Your task to perform on an android device: turn vacation reply on in the gmail app Image 0: 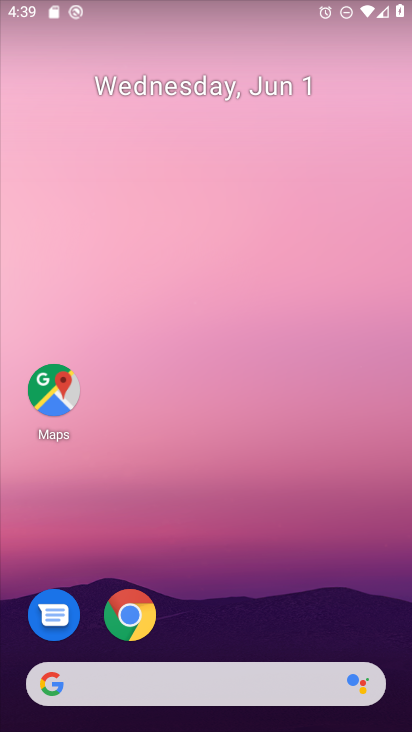
Step 0: press home button
Your task to perform on an android device: turn vacation reply on in the gmail app Image 1: 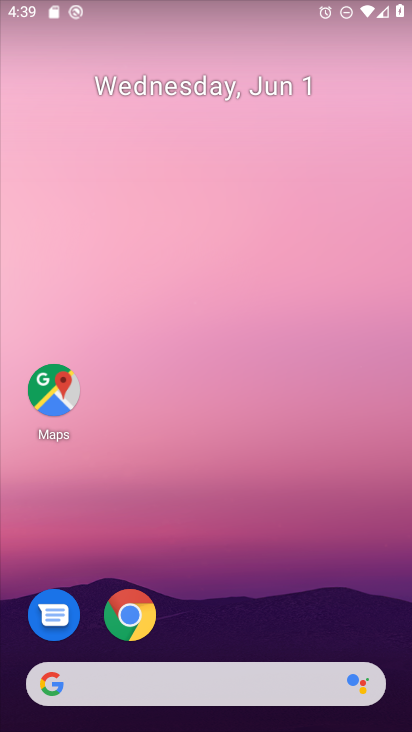
Step 1: drag from (204, 622) to (204, 80)
Your task to perform on an android device: turn vacation reply on in the gmail app Image 2: 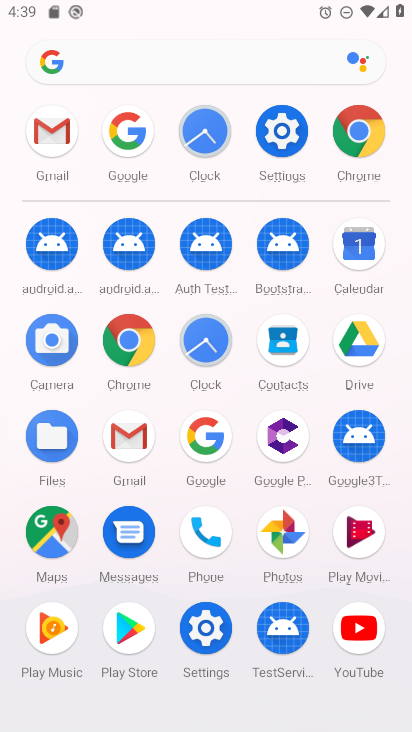
Step 2: click (49, 121)
Your task to perform on an android device: turn vacation reply on in the gmail app Image 3: 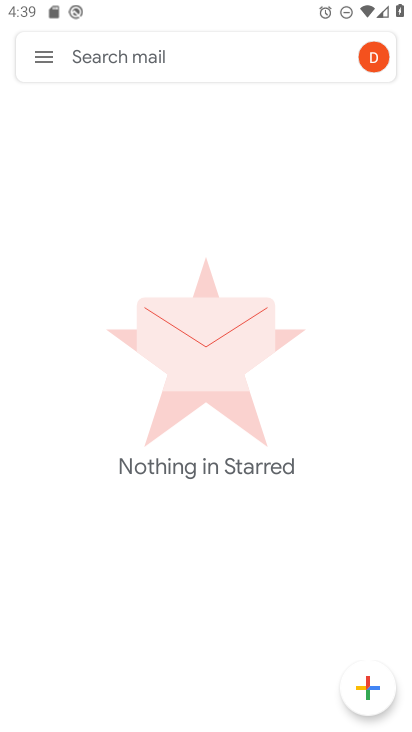
Step 3: click (42, 53)
Your task to perform on an android device: turn vacation reply on in the gmail app Image 4: 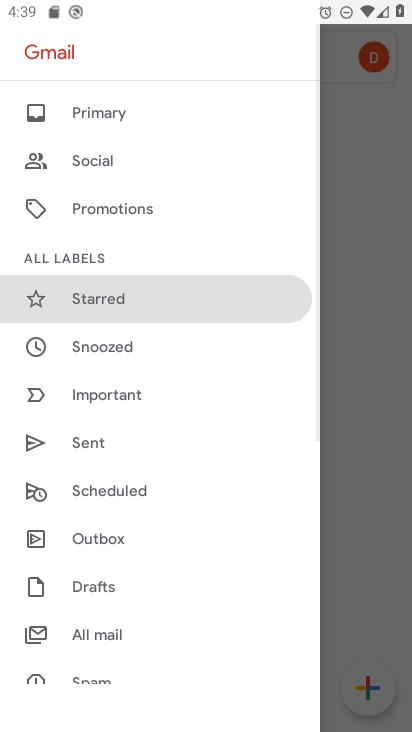
Step 4: drag from (180, 654) to (180, 108)
Your task to perform on an android device: turn vacation reply on in the gmail app Image 5: 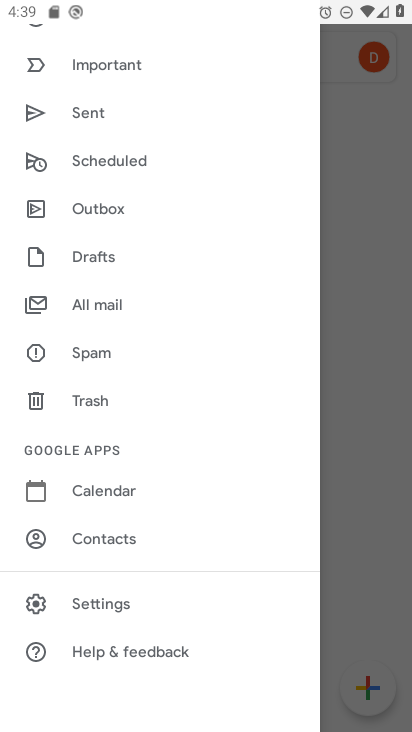
Step 5: click (138, 602)
Your task to perform on an android device: turn vacation reply on in the gmail app Image 6: 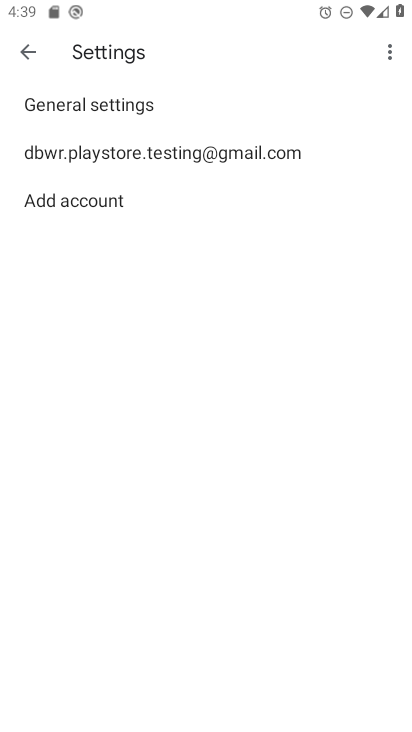
Step 6: click (175, 157)
Your task to perform on an android device: turn vacation reply on in the gmail app Image 7: 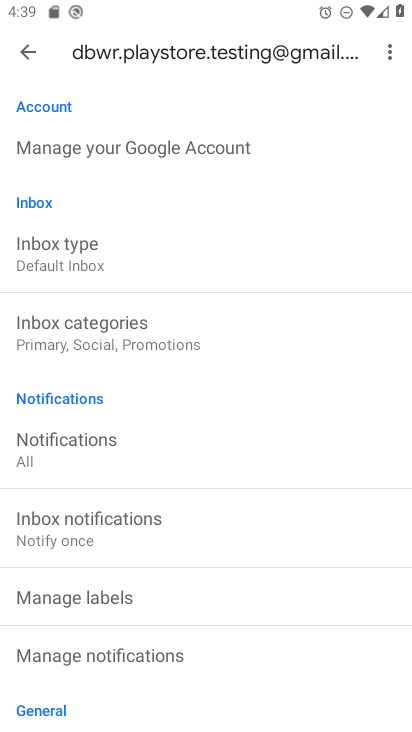
Step 7: drag from (213, 643) to (229, 51)
Your task to perform on an android device: turn vacation reply on in the gmail app Image 8: 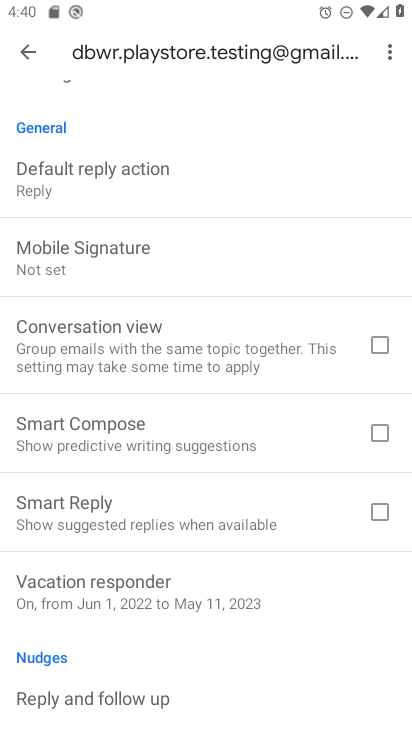
Step 8: click (177, 600)
Your task to perform on an android device: turn vacation reply on in the gmail app Image 9: 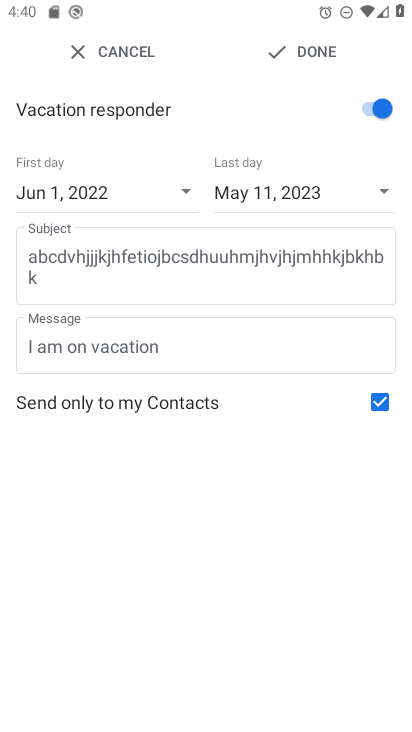
Step 9: task complete